Your task to perform on an android device: Open calendar and show me the first week of next month Image 0: 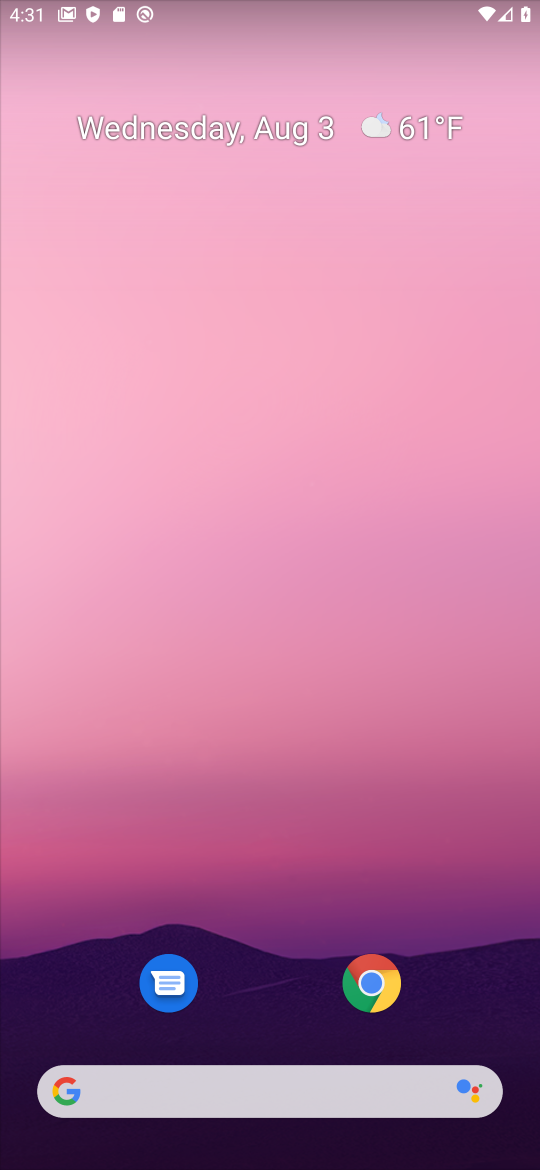
Step 0: drag from (347, 332) to (405, 7)
Your task to perform on an android device: Open calendar and show me the first week of next month Image 1: 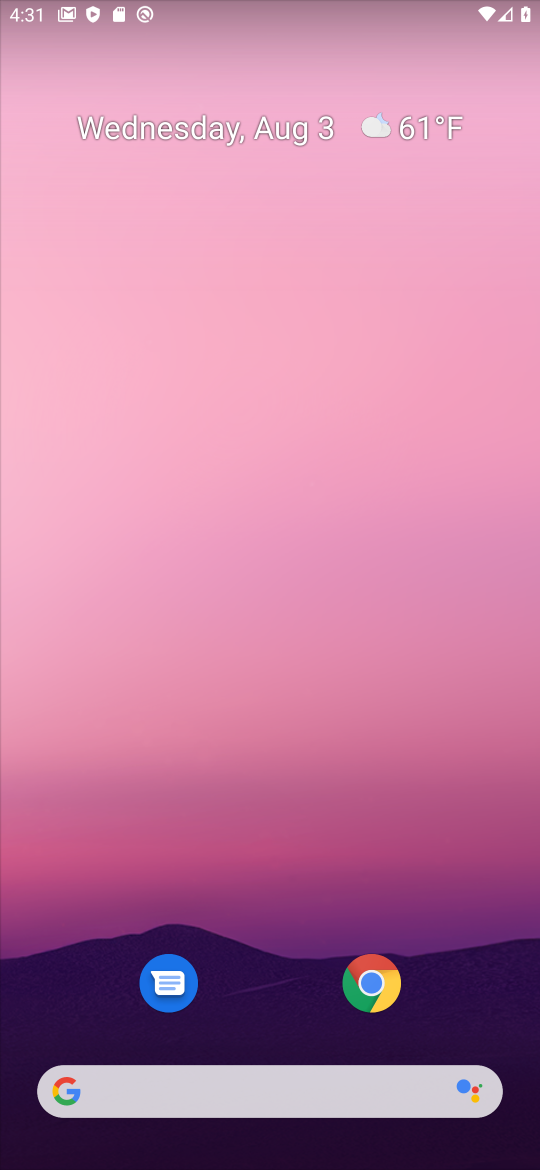
Step 1: drag from (309, 815) to (430, 66)
Your task to perform on an android device: Open calendar and show me the first week of next month Image 2: 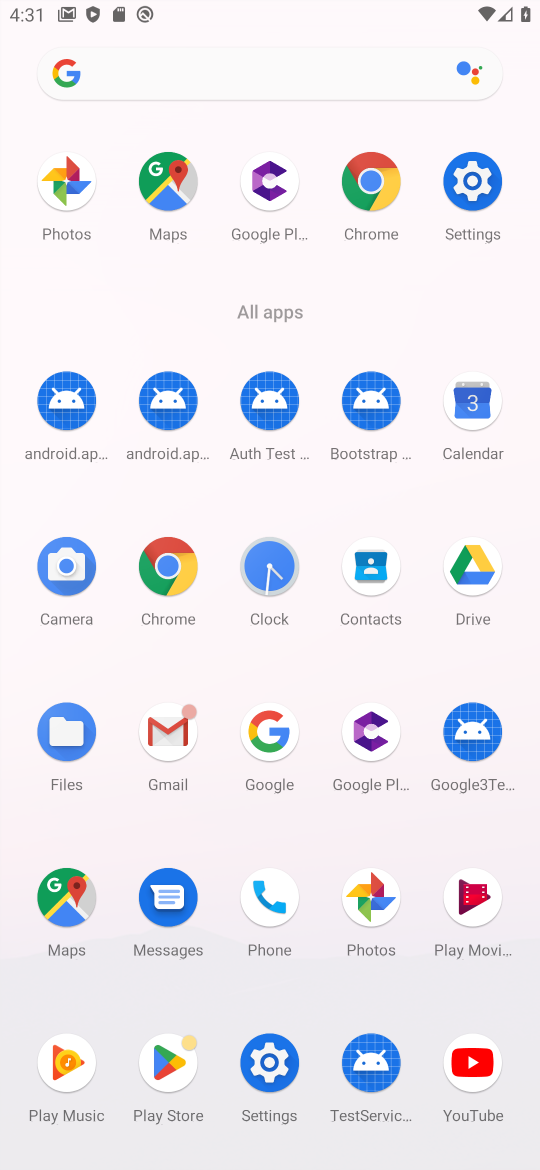
Step 2: click (466, 422)
Your task to perform on an android device: Open calendar and show me the first week of next month Image 3: 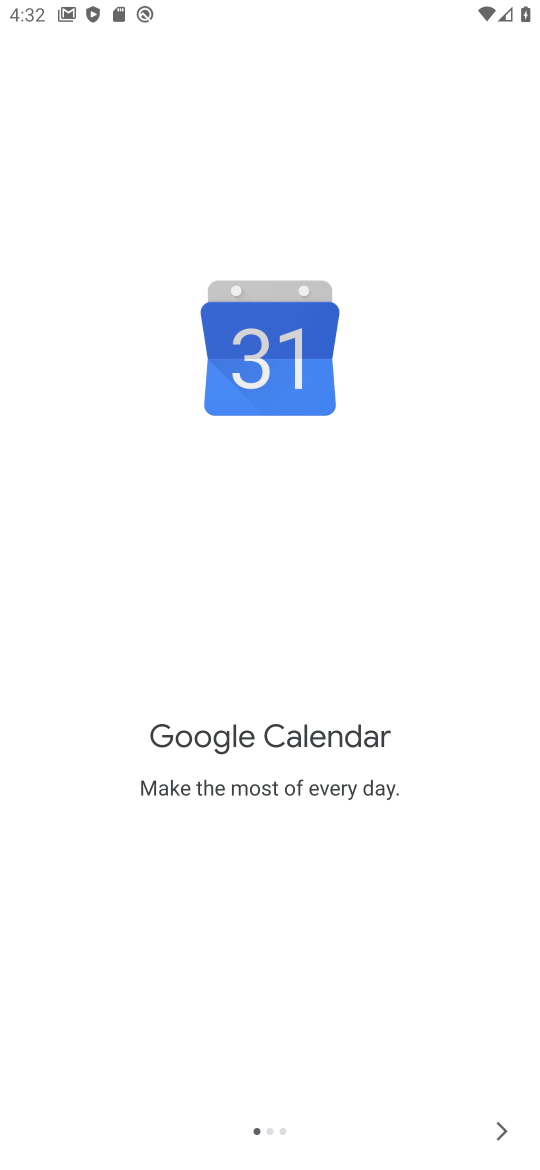
Step 3: click (501, 1142)
Your task to perform on an android device: Open calendar and show me the first week of next month Image 4: 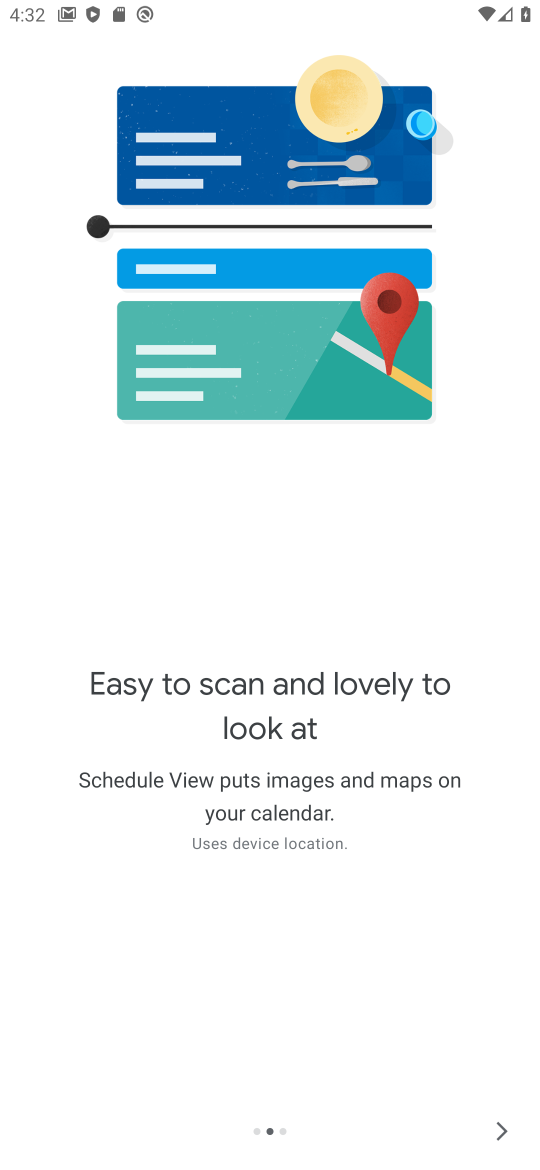
Step 4: click (501, 1135)
Your task to perform on an android device: Open calendar and show me the first week of next month Image 5: 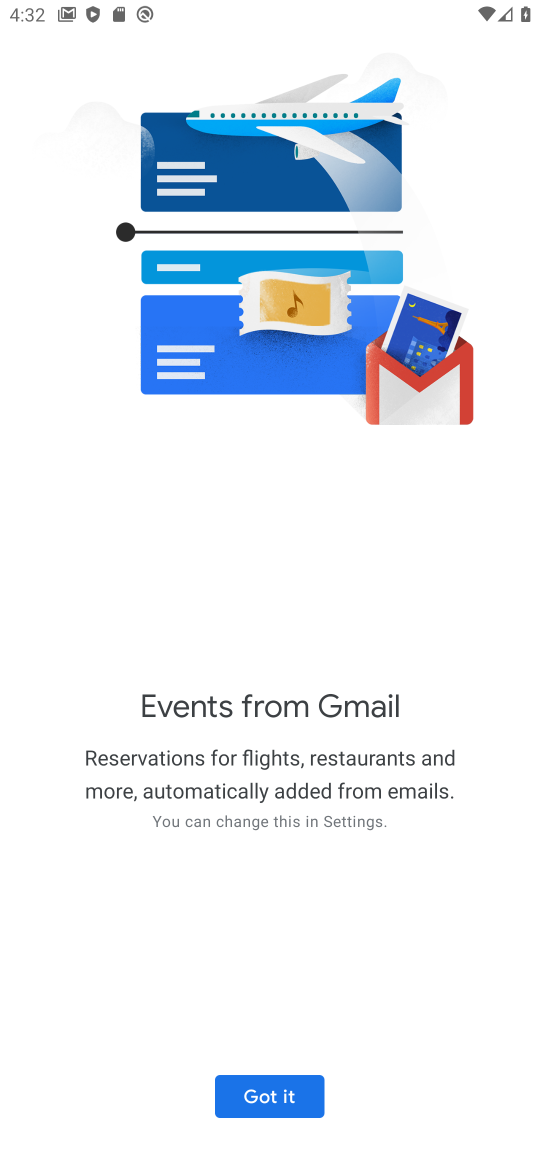
Step 5: click (268, 1102)
Your task to perform on an android device: Open calendar and show me the first week of next month Image 6: 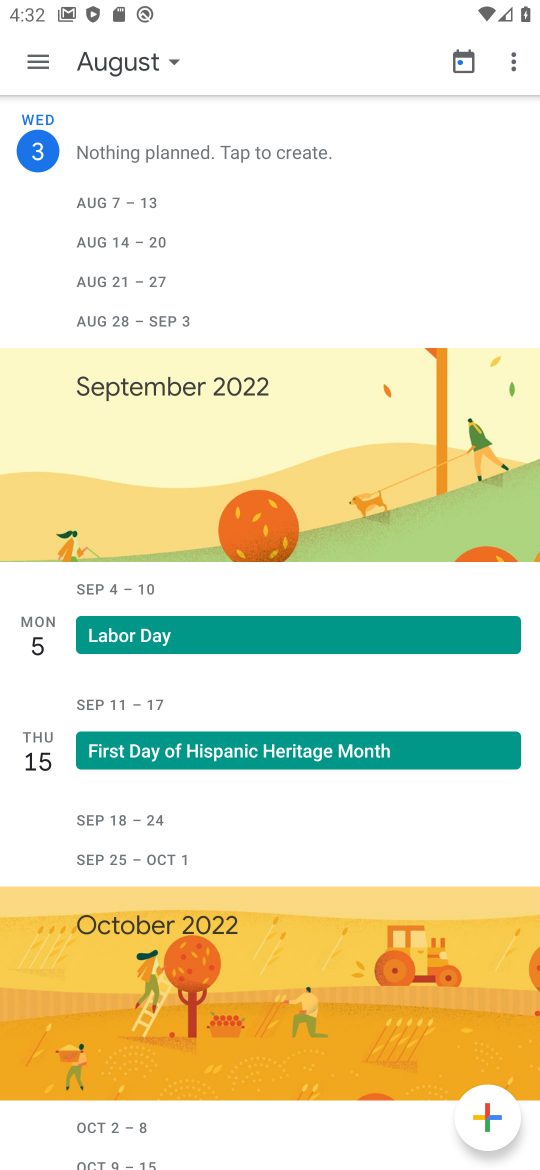
Step 6: click (167, 62)
Your task to perform on an android device: Open calendar and show me the first week of next month Image 7: 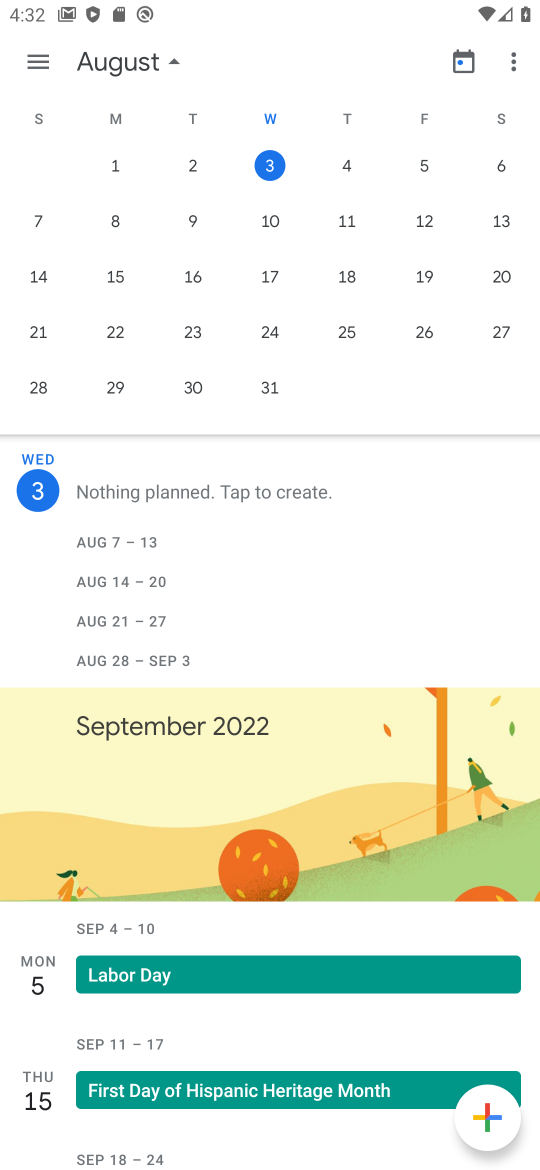
Step 7: drag from (428, 307) to (59, 313)
Your task to perform on an android device: Open calendar and show me the first week of next month Image 8: 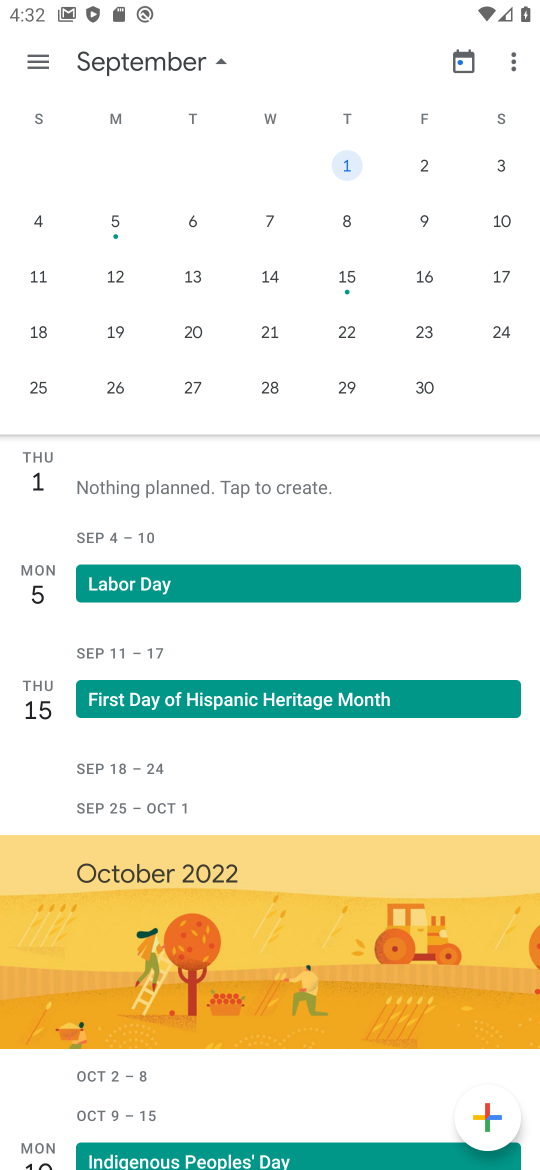
Step 8: click (354, 169)
Your task to perform on an android device: Open calendar and show me the first week of next month Image 9: 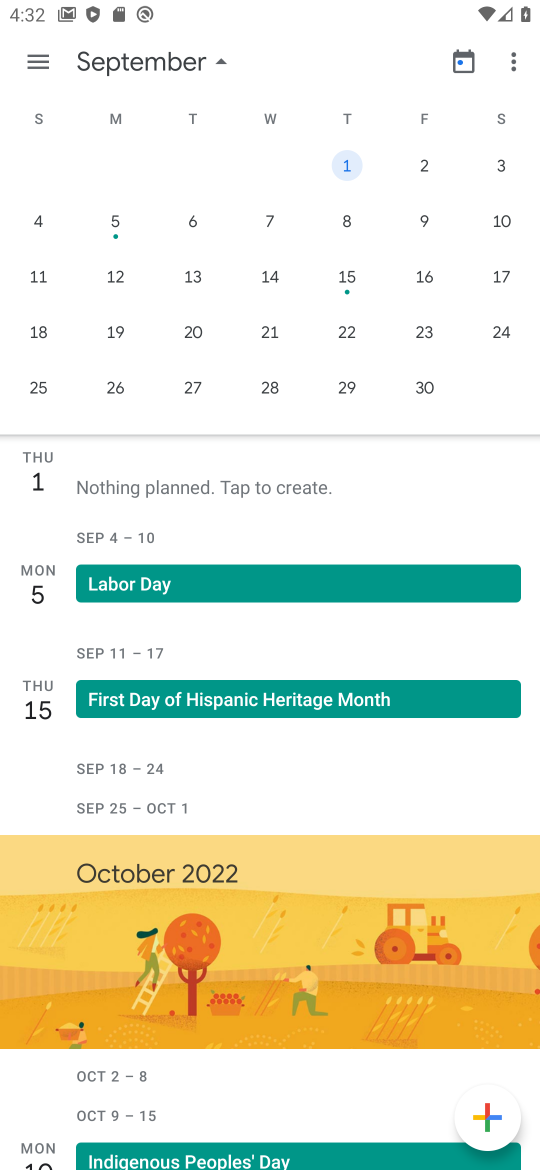
Step 9: click (418, 172)
Your task to perform on an android device: Open calendar and show me the first week of next month Image 10: 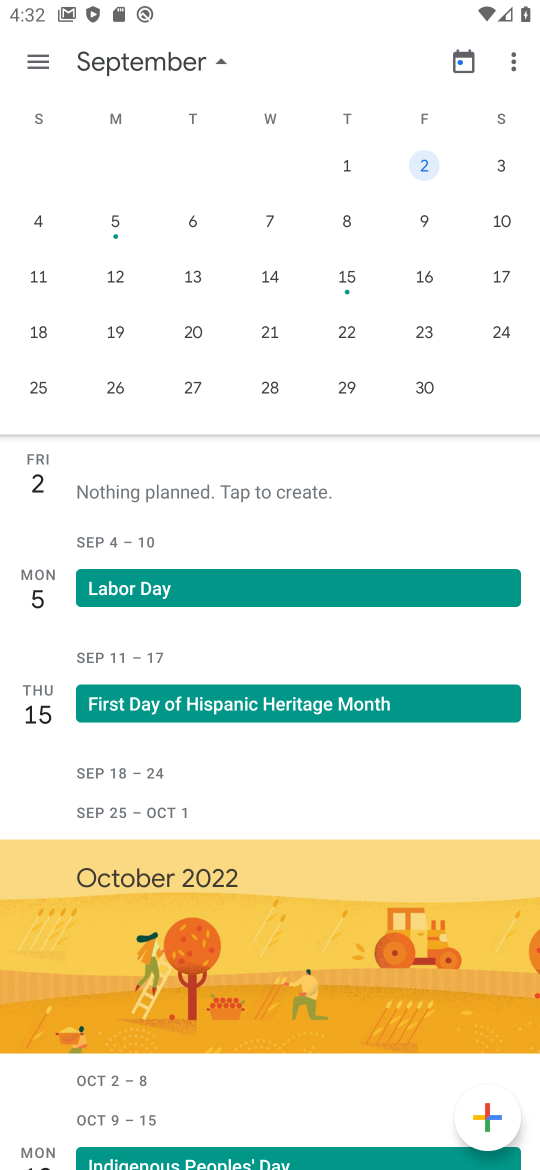
Step 10: click (501, 167)
Your task to perform on an android device: Open calendar and show me the first week of next month Image 11: 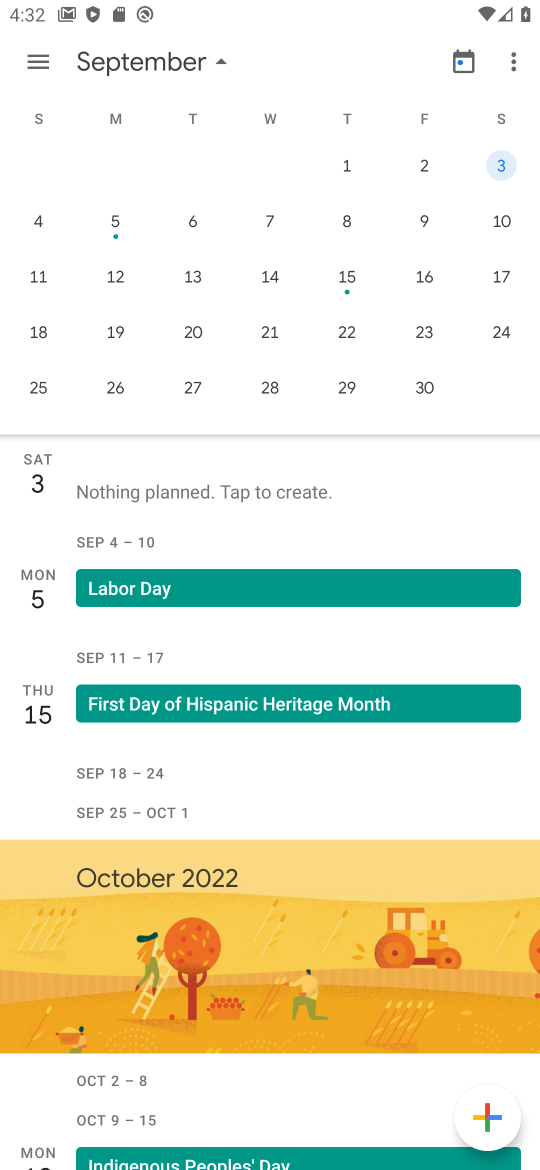
Step 11: click (38, 219)
Your task to perform on an android device: Open calendar and show me the first week of next month Image 12: 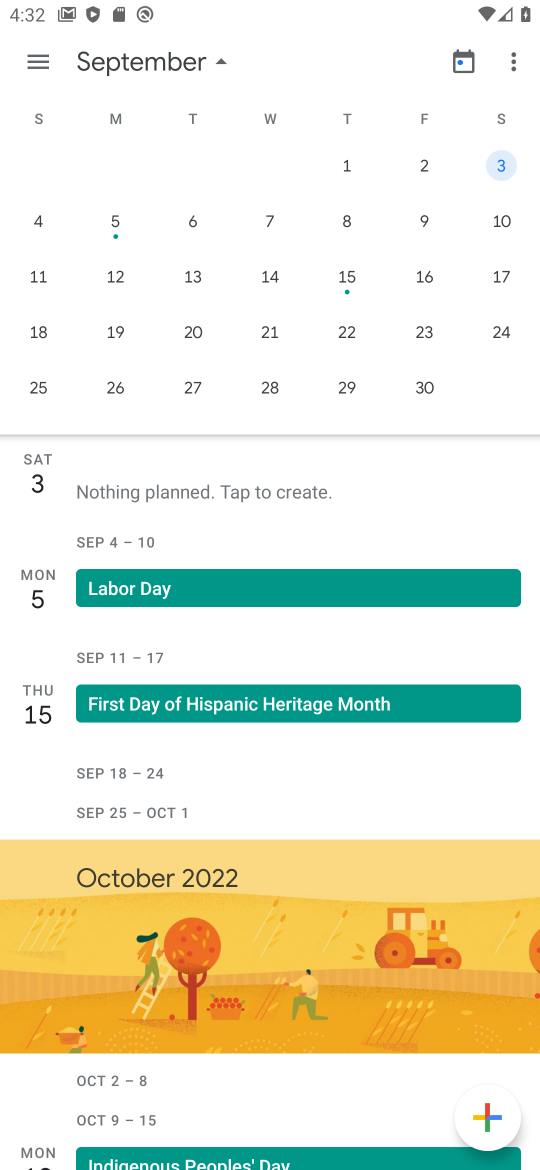
Step 12: click (128, 225)
Your task to perform on an android device: Open calendar and show me the first week of next month Image 13: 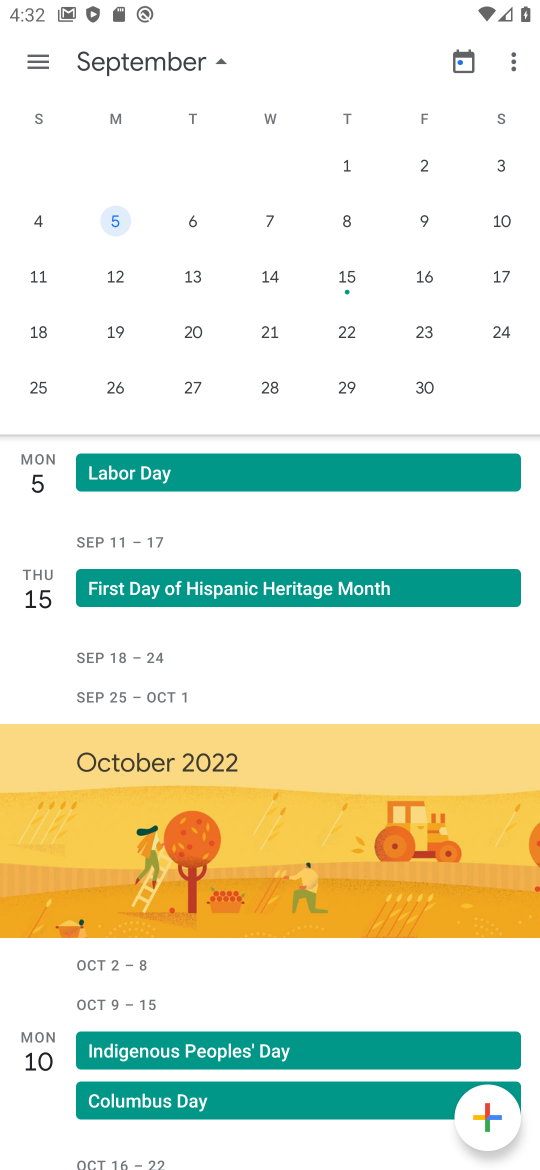
Step 13: click (202, 220)
Your task to perform on an android device: Open calendar and show me the first week of next month Image 14: 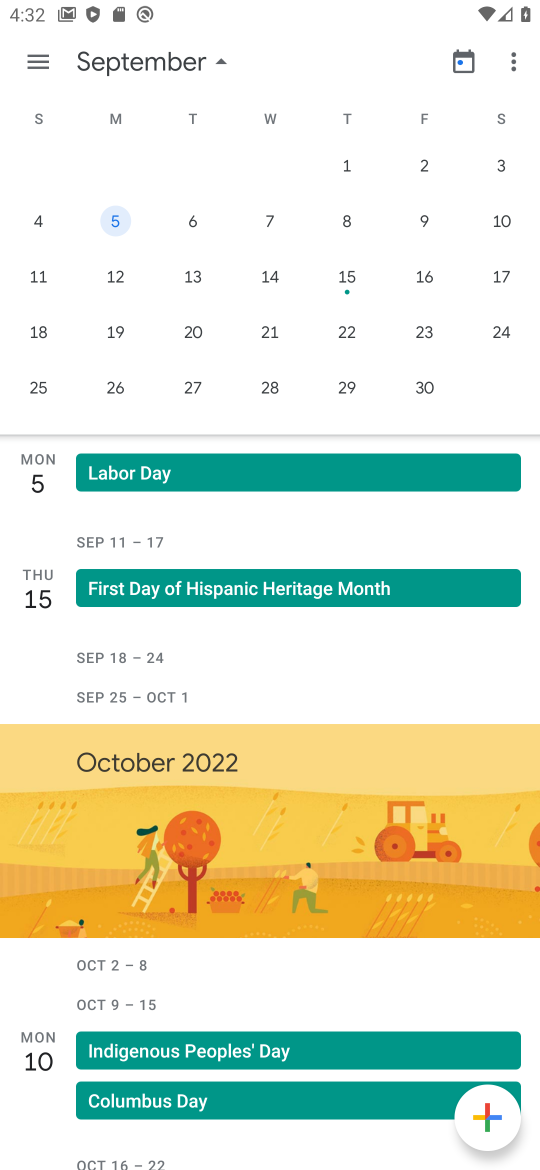
Step 14: click (284, 222)
Your task to perform on an android device: Open calendar and show me the first week of next month Image 15: 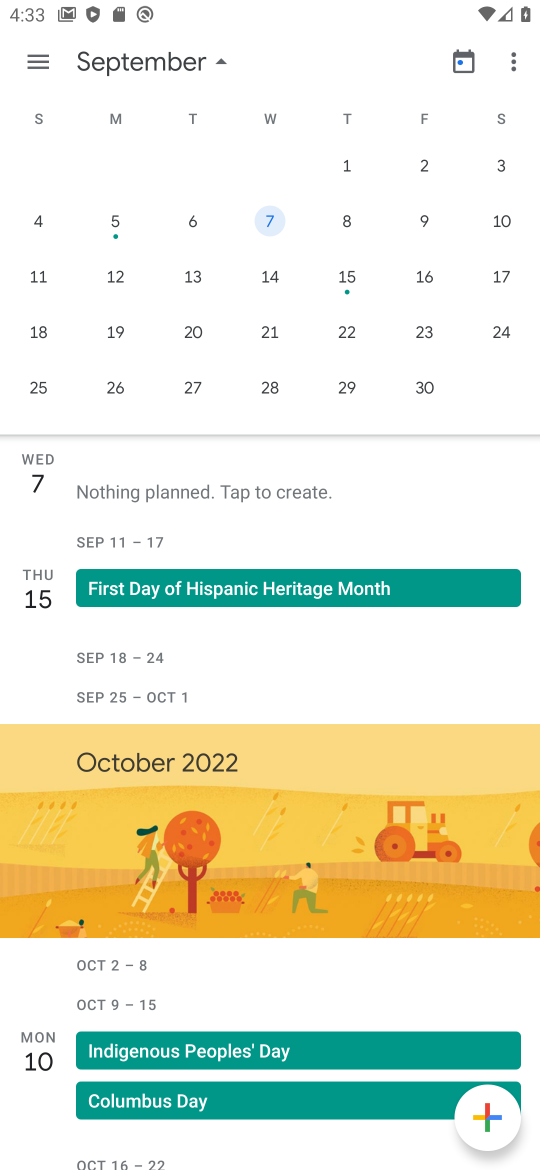
Step 15: task complete